Your task to perform on an android device: turn off airplane mode Image 0: 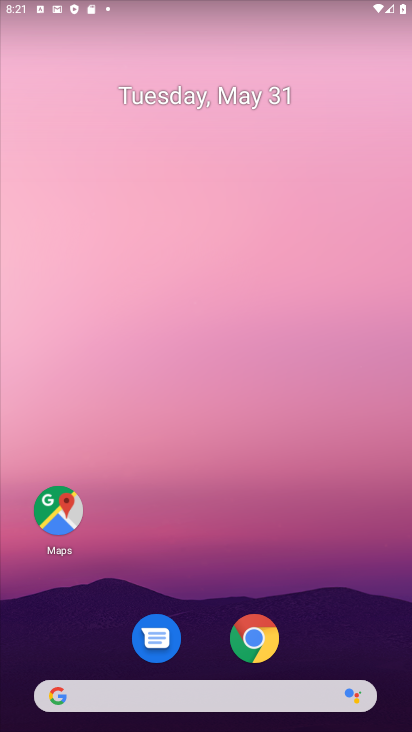
Step 0: drag from (143, 707) to (221, 225)
Your task to perform on an android device: turn off airplane mode Image 1: 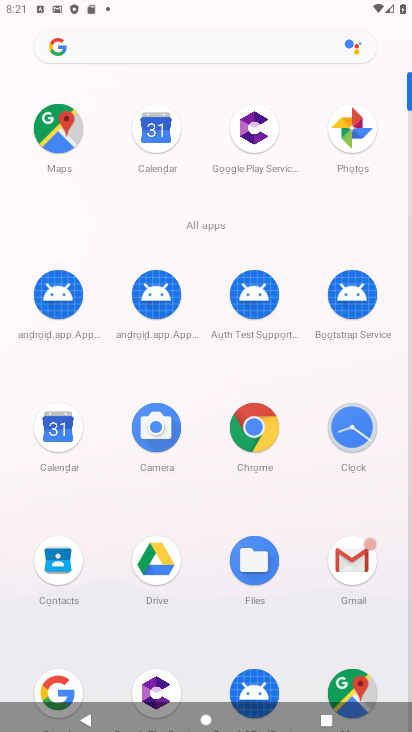
Step 1: drag from (193, 506) to (255, 73)
Your task to perform on an android device: turn off airplane mode Image 2: 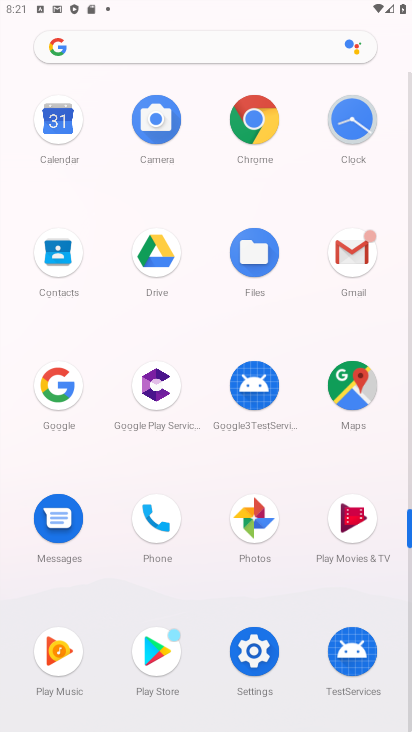
Step 2: click (225, 649)
Your task to perform on an android device: turn off airplane mode Image 3: 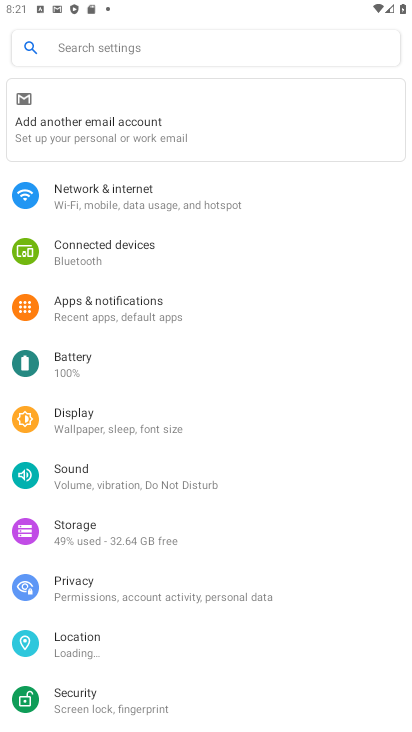
Step 3: task complete